Your task to perform on an android device: turn off improve location accuracy Image 0: 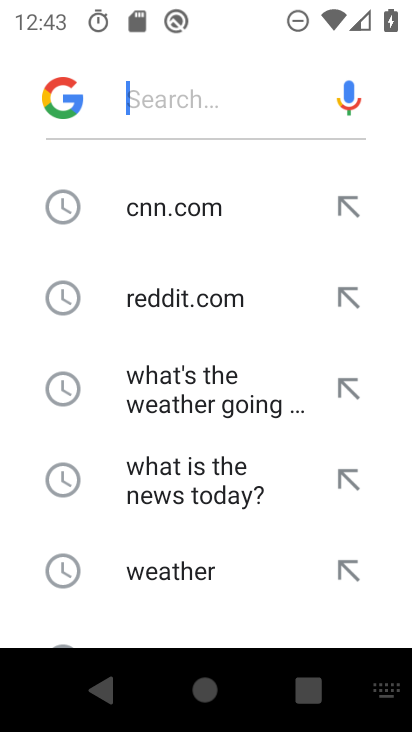
Step 0: press back button
Your task to perform on an android device: turn off improve location accuracy Image 1: 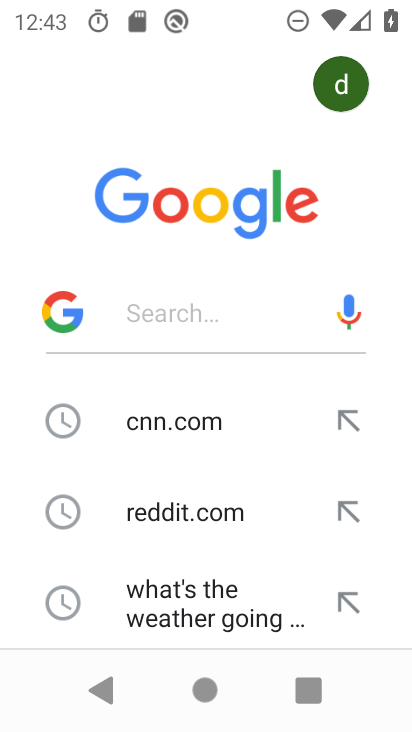
Step 1: press back button
Your task to perform on an android device: turn off improve location accuracy Image 2: 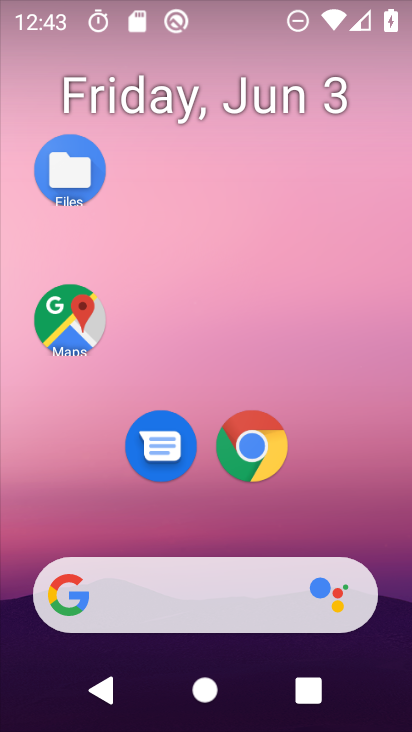
Step 2: drag from (252, 600) to (209, 137)
Your task to perform on an android device: turn off improve location accuracy Image 3: 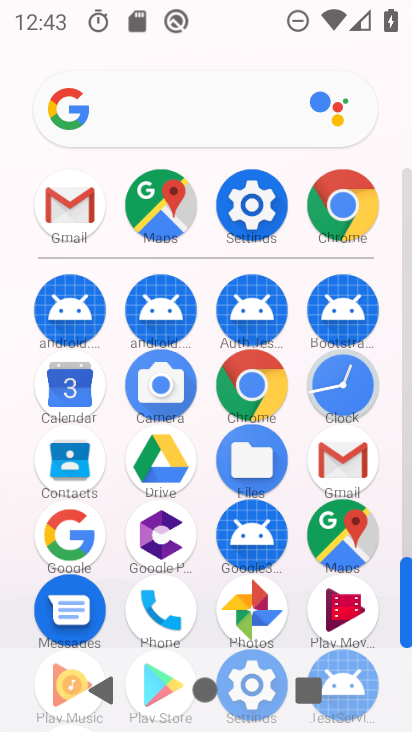
Step 3: click (254, 192)
Your task to perform on an android device: turn off improve location accuracy Image 4: 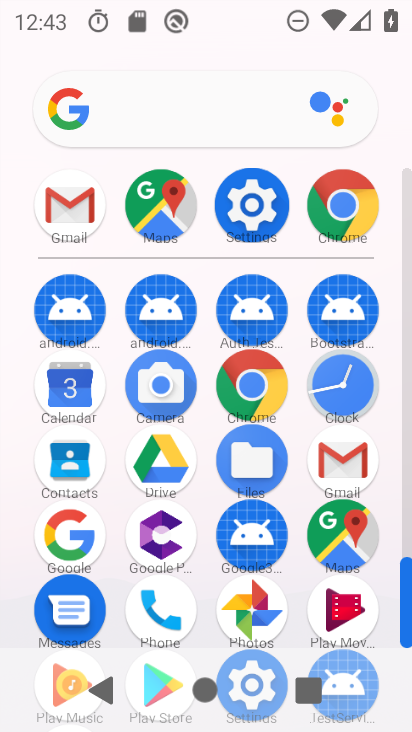
Step 4: click (264, 199)
Your task to perform on an android device: turn off improve location accuracy Image 5: 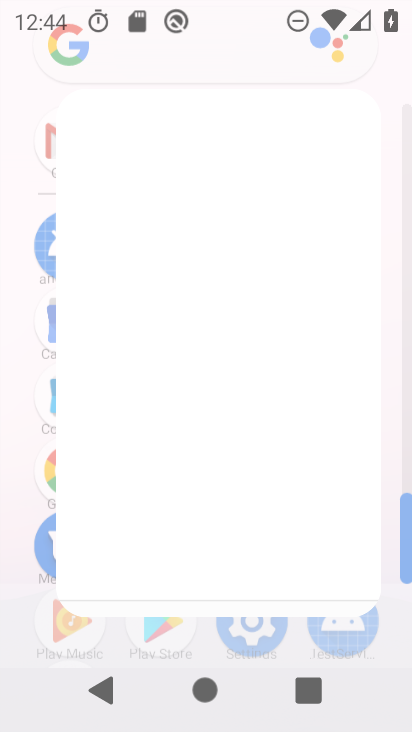
Step 5: click (261, 200)
Your task to perform on an android device: turn off improve location accuracy Image 6: 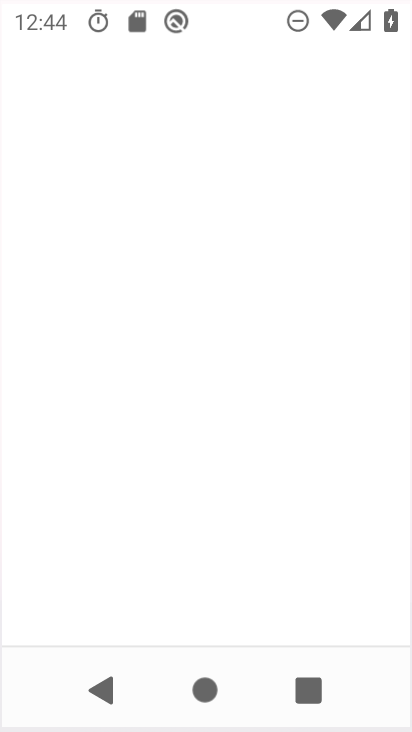
Step 6: click (260, 200)
Your task to perform on an android device: turn off improve location accuracy Image 7: 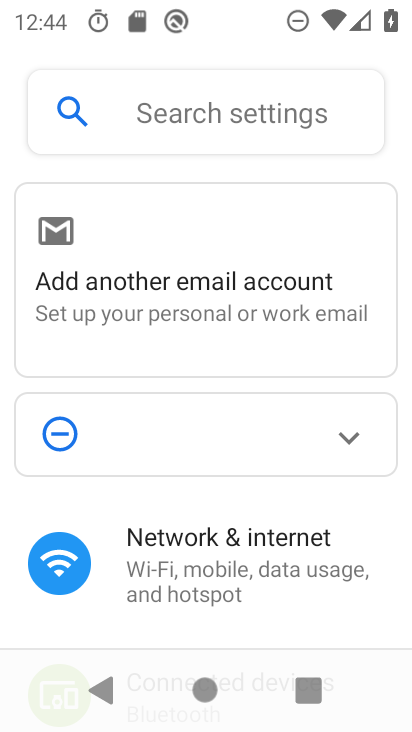
Step 7: drag from (184, 564) to (145, 185)
Your task to perform on an android device: turn off improve location accuracy Image 8: 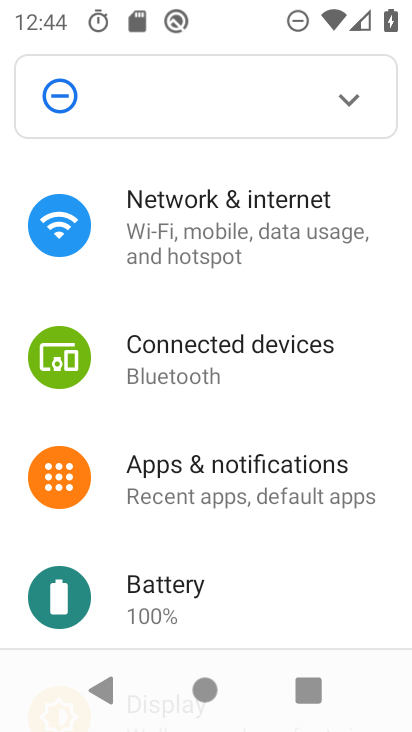
Step 8: drag from (226, 359) to (202, 222)
Your task to perform on an android device: turn off improve location accuracy Image 9: 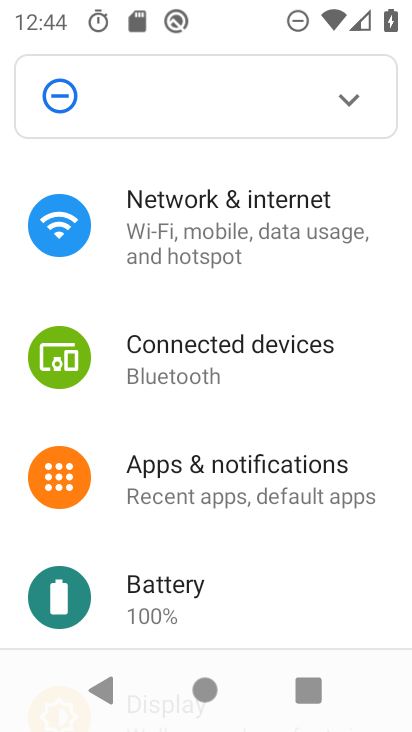
Step 9: drag from (224, 469) to (175, 220)
Your task to perform on an android device: turn off improve location accuracy Image 10: 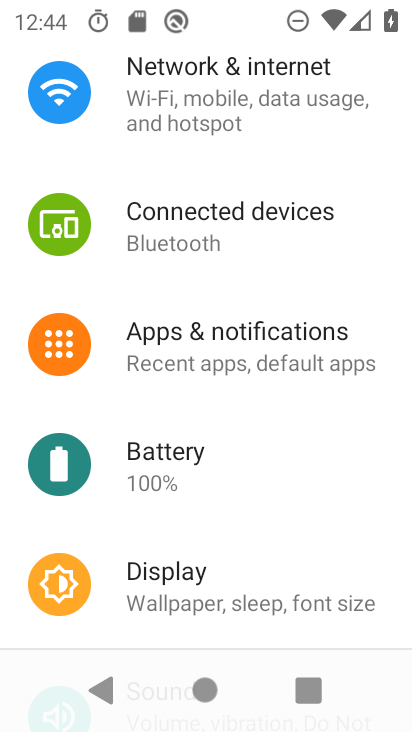
Step 10: drag from (239, 316) to (239, 144)
Your task to perform on an android device: turn off improve location accuracy Image 11: 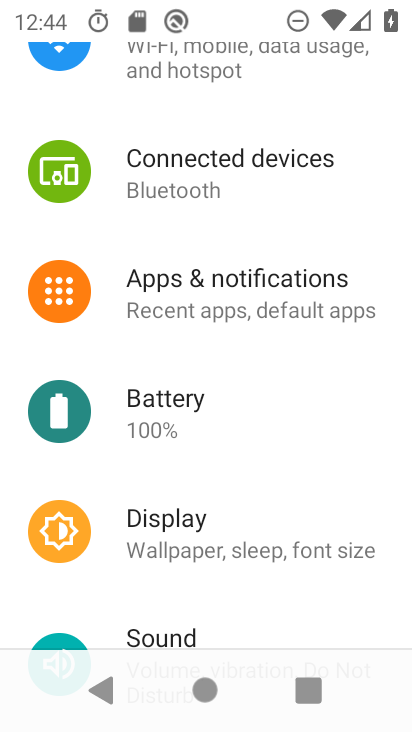
Step 11: drag from (183, 453) to (116, 258)
Your task to perform on an android device: turn off improve location accuracy Image 12: 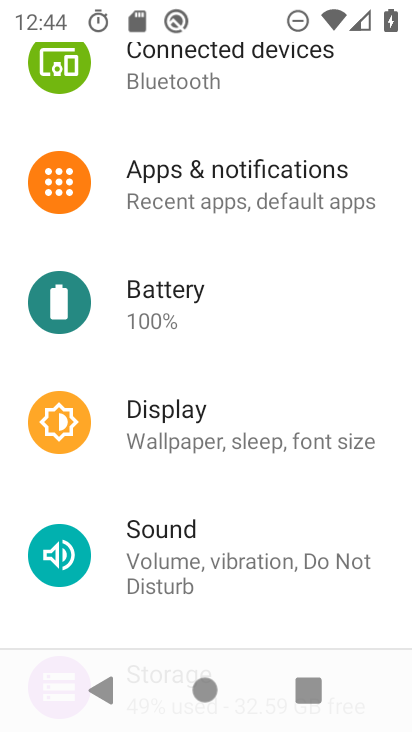
Step 12: drag from (198, 411) to (114, 115)
Your task to perform on an android device: turn off improve location accuracy Image 13: 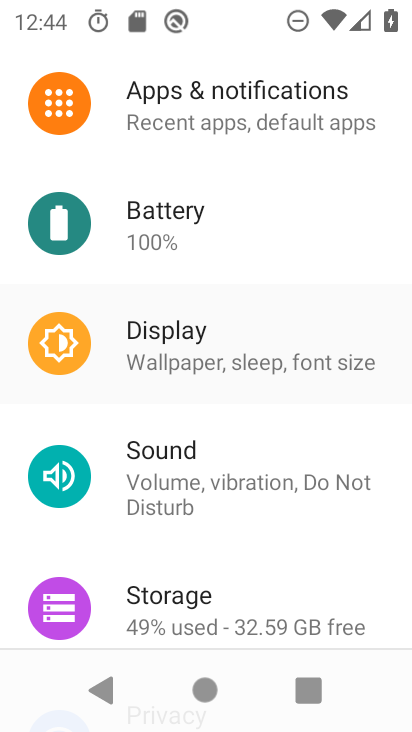
Step 13: drag from (118, 493) to (108, 180)
Your task to perform on an android device: turn off improve location accuracy Image 14: 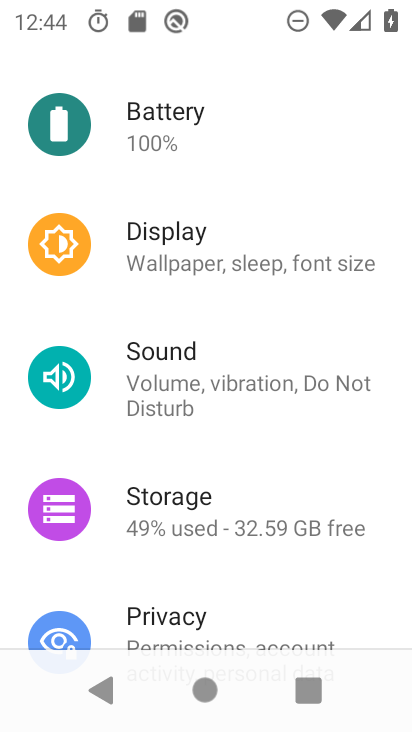
Step 14: drag from (192, 457) to (106, 76)
Your task to perform on an android device: turn off improve location accuracy Image 15: 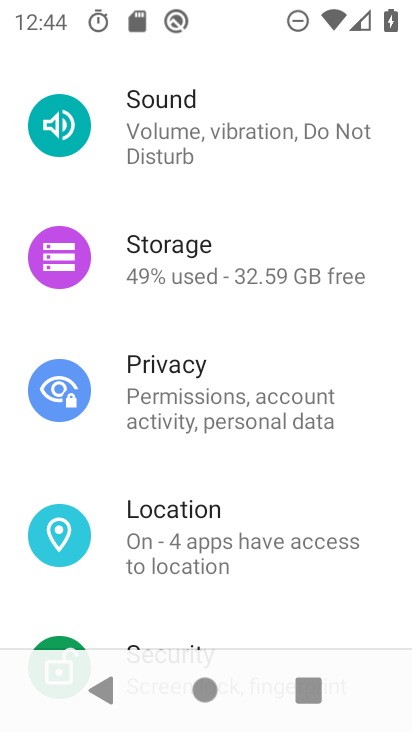
Step 15: drag from (192, 335) to (104, 66)
Your task to perform on an android device: turn off improve location accuracy Image 16: 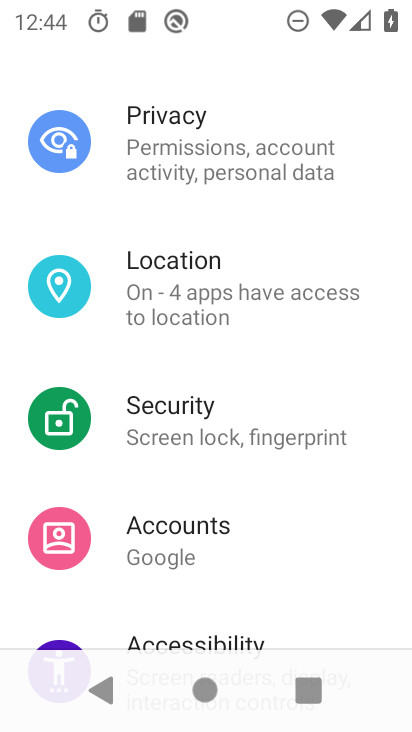
Step 16: drag from (199, 417) to (175, 22)
Your task to perform on an android device: turn off improve location accuracy Image 17: 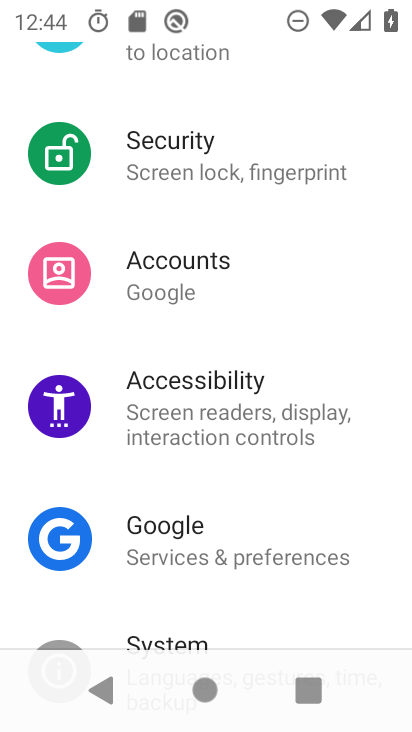
Step 17: drag from (195, 394) to (157, 131)
Your task to perform on an android device: turn off improve location accuracy Image 18: 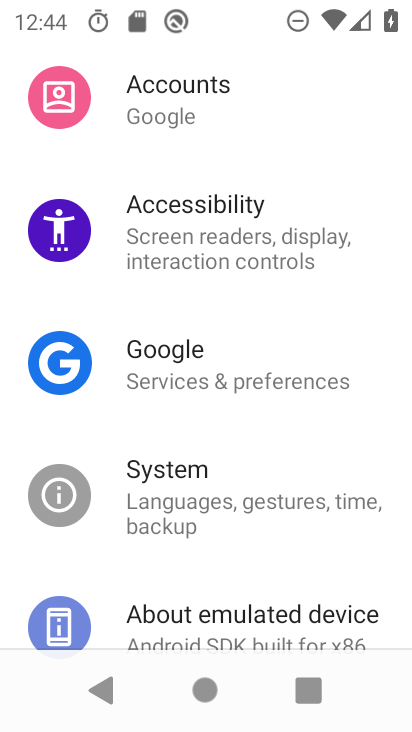
Step 18: drag from (173, 279) to (283, 504)
Your task to perform on an android device: turn off improve location accuracy Image 19: 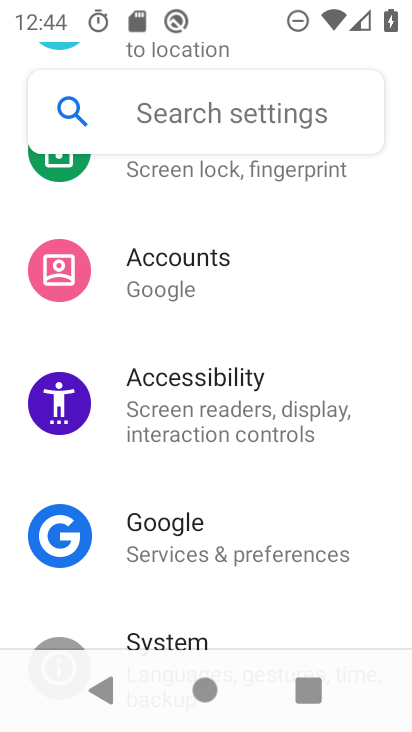
Step 19: drag from (205, 338) to (216, 505)
Your task to perform on an android device: turn off improve location accuracy Image 20: 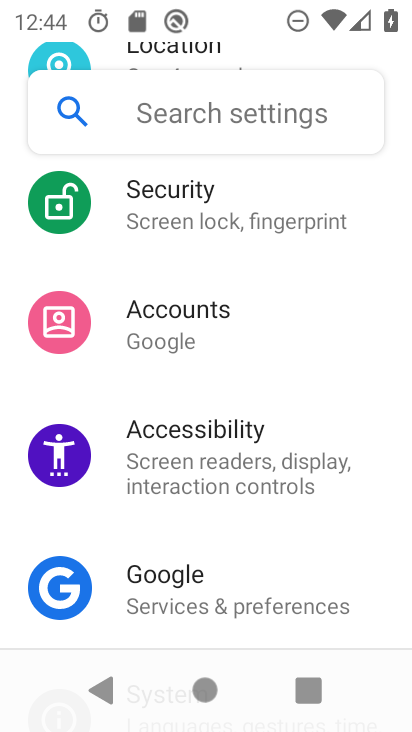
Step 20: drag from (216, 312) to (271, 518)
Your task to perform on an android device: turn off improve location accuracy Image 21: 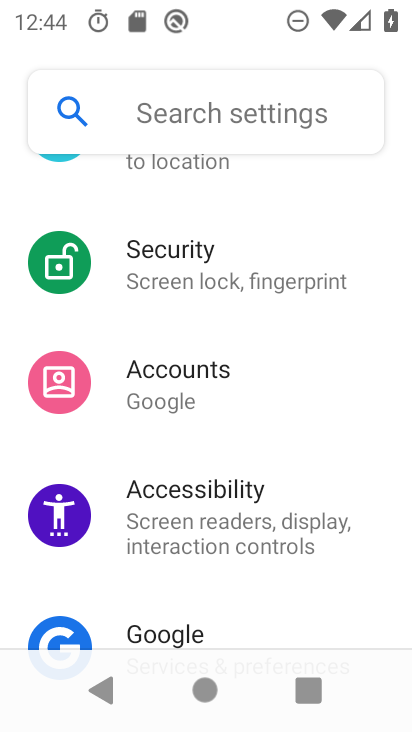
Step 21: drag from (198, 353) to (221, 496)
Your task to perform on an android device: turn off improve location accuracy Image 22: 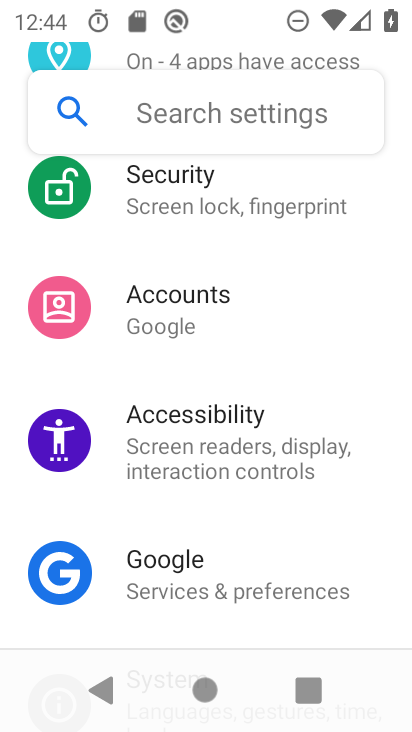
Step 22: drag from (250, 482) to (191, 514)
Your task to perform on an android device: turn off improve location accuracy Image 23: 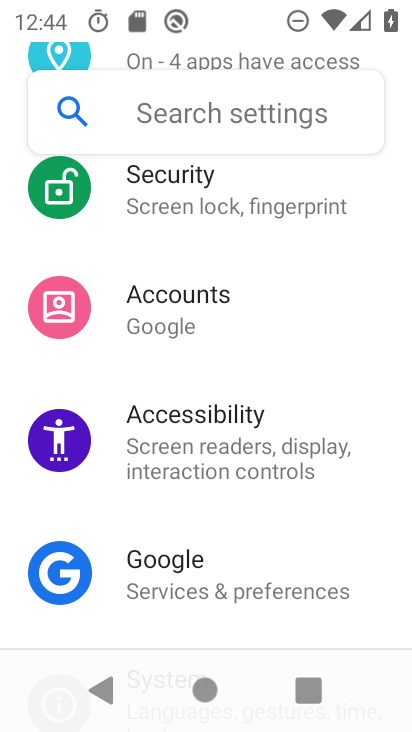
Step 23: drag from (199, 381) to (240, 663)
Your task to perform on an android device: turn off improve location accuracy Image 24: 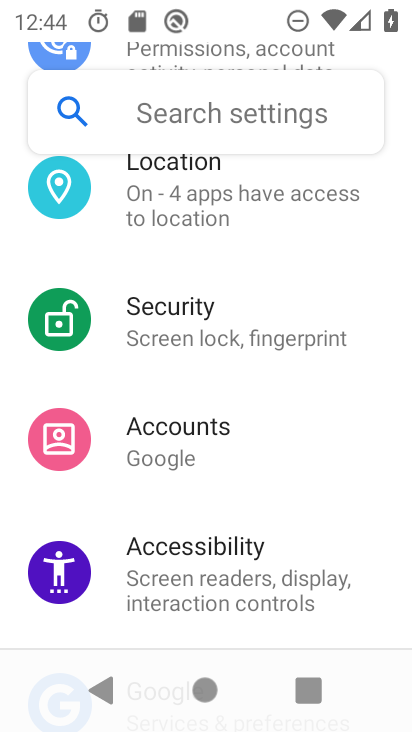
Step 24: click (186, 203)
Your task to perform on an android device: turn off improve location accuracy Image 25: 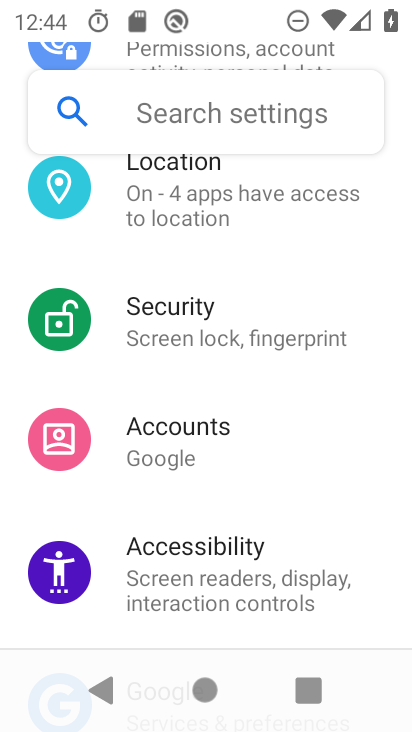
Step 25: click (200, 198)
Your task to perform on an android device: turn off improve location accuracy Image 26: 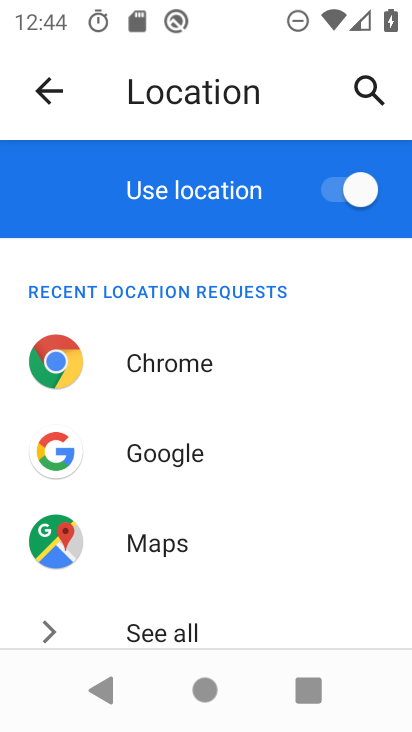
Step 26: drag from (188, 491) to (161, 192)
Your task to perform on an android device: turn off improve location accuracy Image 27: 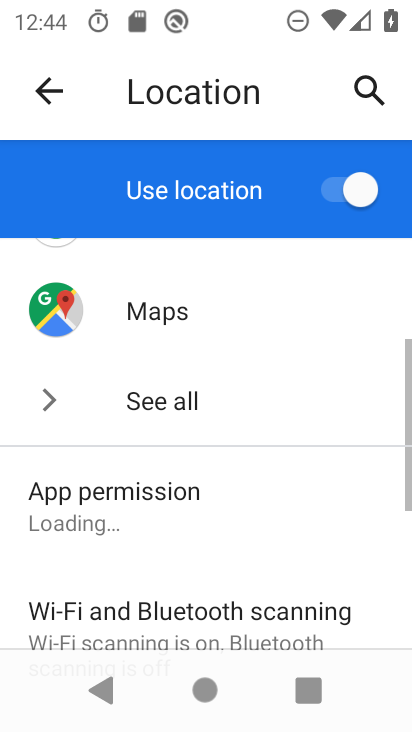
Step 27: drag from (258, 439) to (220, 247)
Your task to perform on an android device: turn off improve location accuracy Image 28: 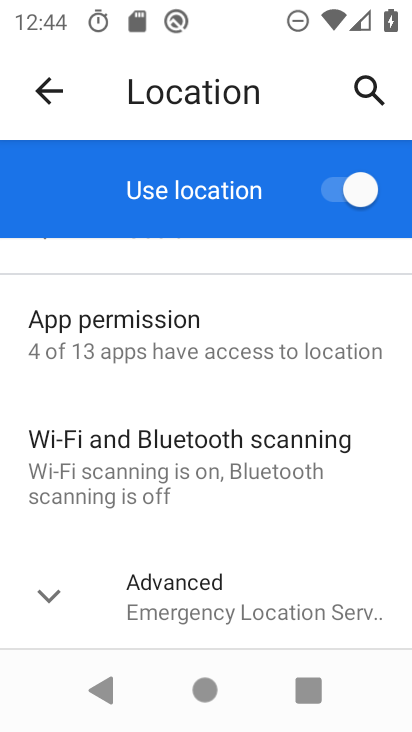
Step 28: drag from (223, 518) to (186, 241)
Your task to perform on an android device: turn off improve location accuracy Image 29: 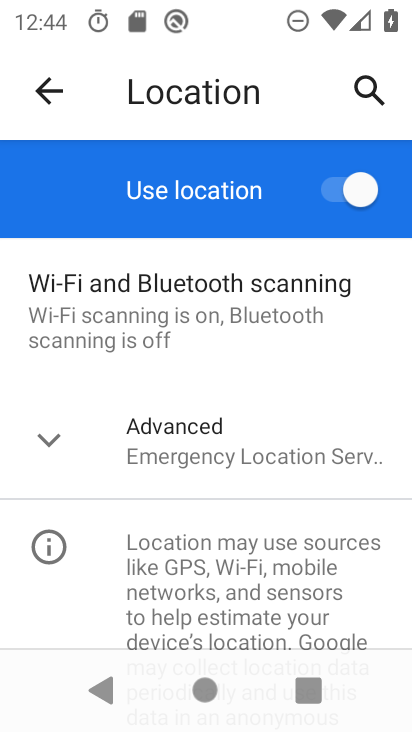
Step 29: click (189, 564)
Your task to perform on an android device: turn off improve location accuracy Image 30: 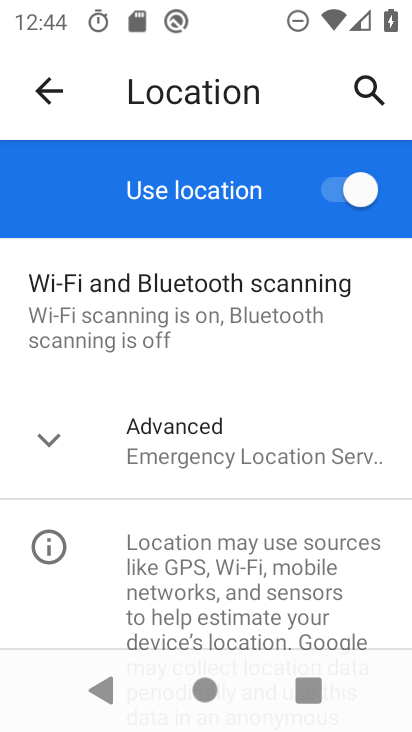
Step 30: click (191, 444)
Your task to perform on an android device: turn off improve location accuracy Image 31: 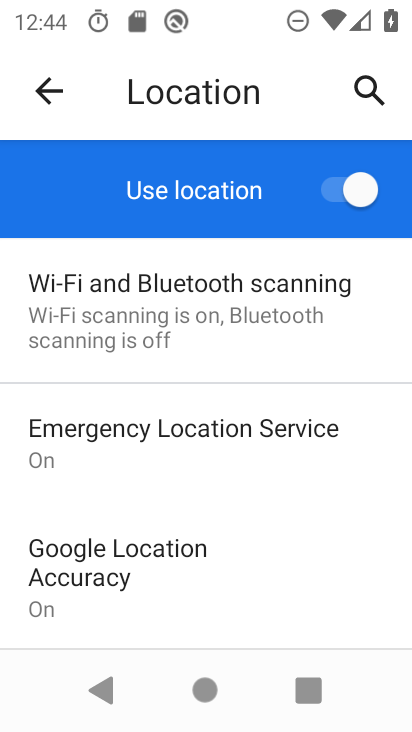
Step 31: drag from (202, 477) to (210, 258)
Your task to perform on an android device: turn off improve location accuracy Image 32: 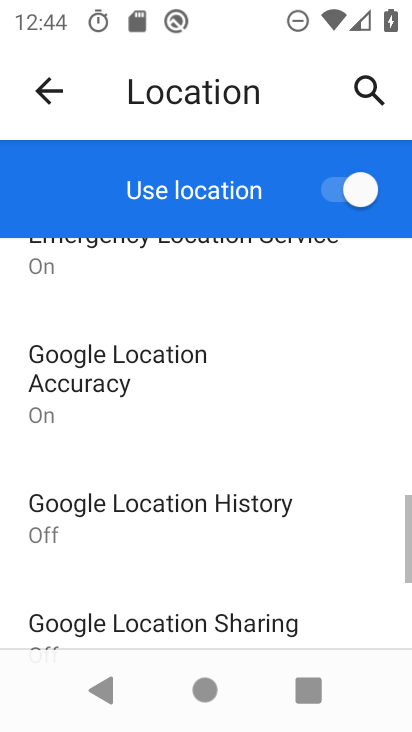
Step 32: drag from (228, 406) to (203, 194)
Your task to perform on an android device: turn off improve location accuracy Image 33: 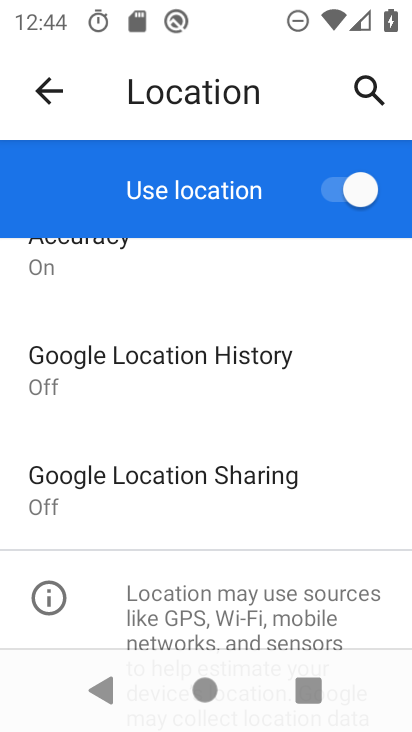
Step 33: drag from (170, 352) to (193, 493)
Your task to perform on an android device: turn off improve location accuracy Image 34: 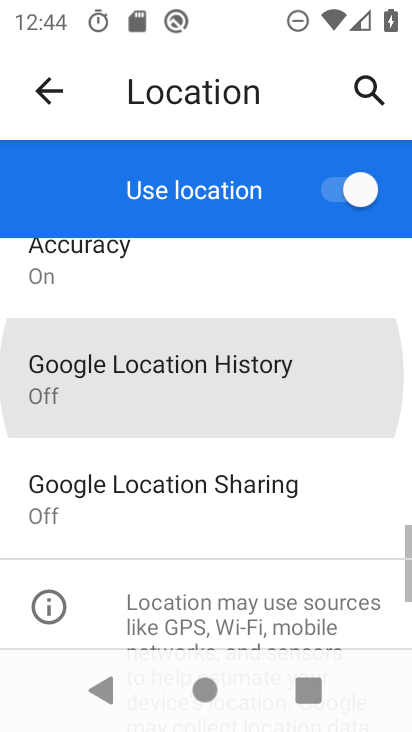
Step 34: drag from (146, 364) to (158, 468)
Your task to perform on an android device: turn off improve location accuracy Image 35: 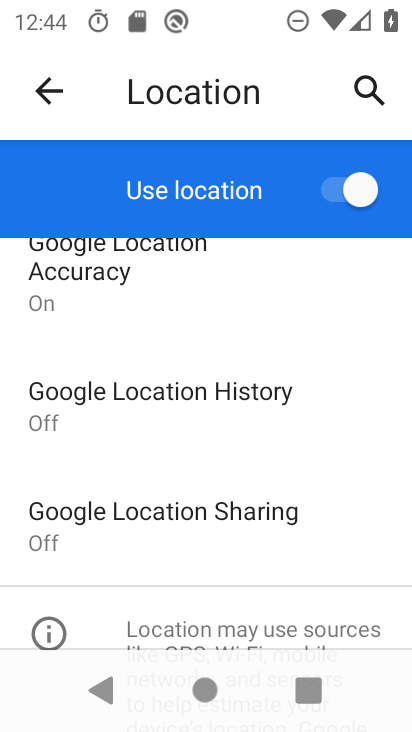
Step 35: drag from (170, 353) to (199, 469)
Your task to perform on an android device: turn off improve location accuracy Image 36: 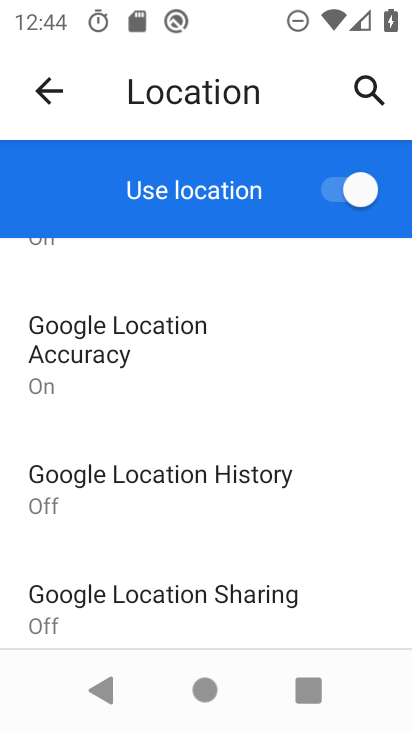
Step 36: click (94, 338)
Your task to perform on an android device: turn off improve location accuracy Image 37: 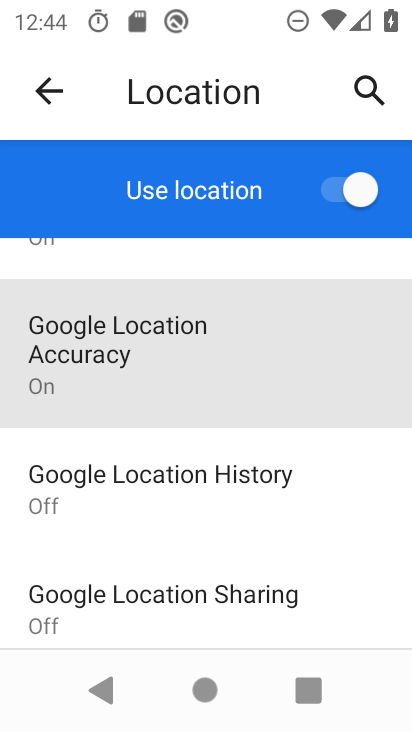
Step 37: click (94, 338)
Your task to perform on an android device: turn off improve location accuracy Image 38: 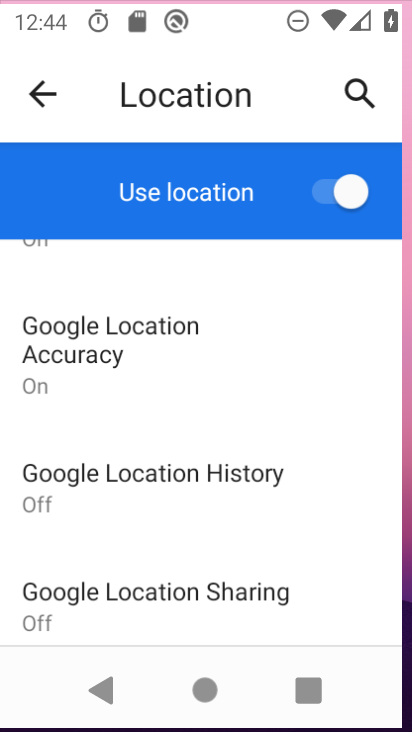
Step 38: click (98, 347)
Your task to perform on an android device: turn off improve location accuracy Image 39: 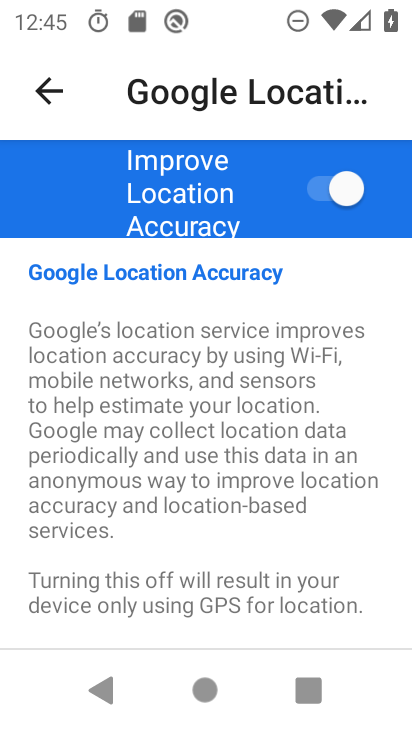
Step 39: click (339, 183)
Your task to perform on an android device: turn off improve location accuracy Image 40: 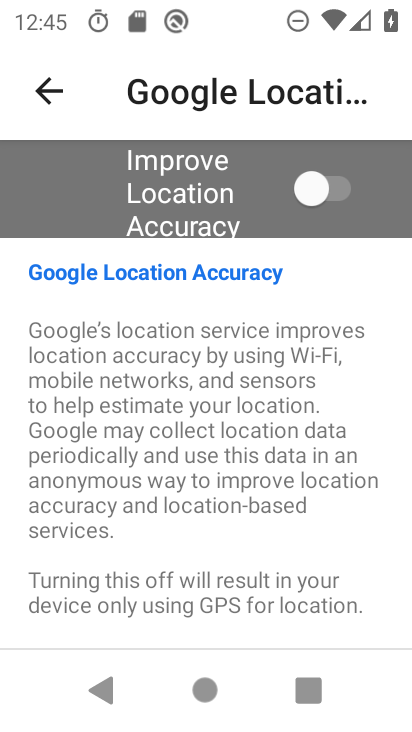
Step 40: task complete